Your task to perform on an android device: Open Maps and search for coffee Image 0: 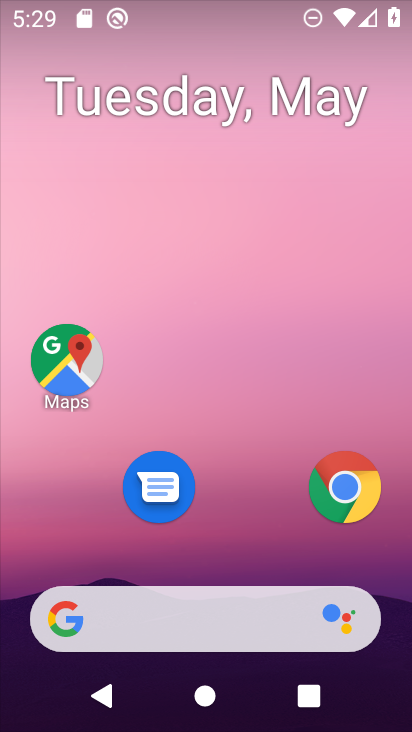
Step 0: click (70, 368)
Your task to perform on an android device: Open Maps and search for coffee Image 1: 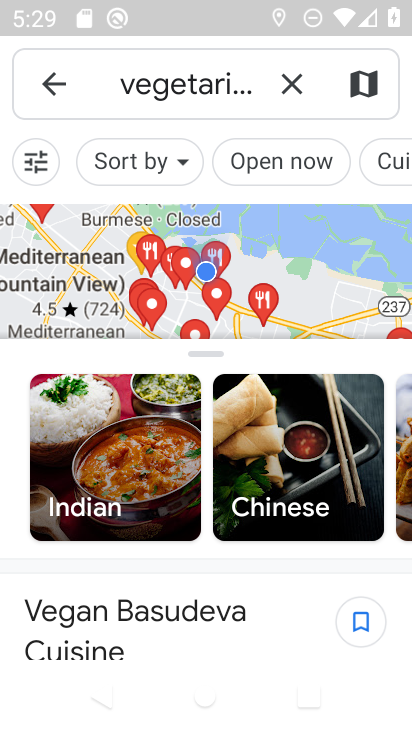
Step 1: click (290, 88)
Your task to perform on an android device: Open Maps and search for coffee Image 2: 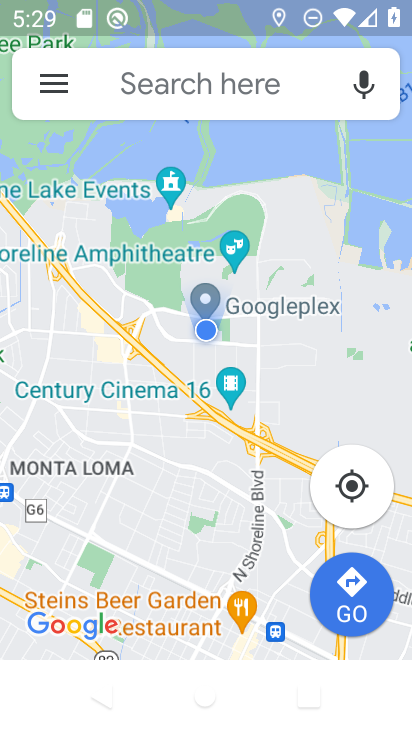
Step 2: click (290, 88)
Your task to perform on an android device: Open Maps and search for coffee Image 3: 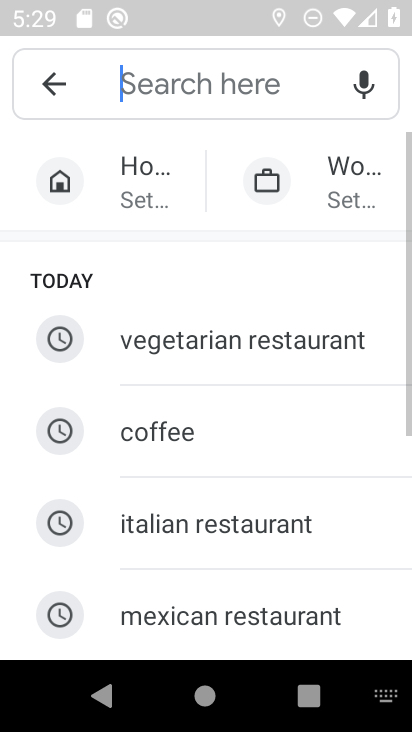
Step 3: click (239, 442)
Your task to perform on an android device: Open Maps and search for coffee Image 4: 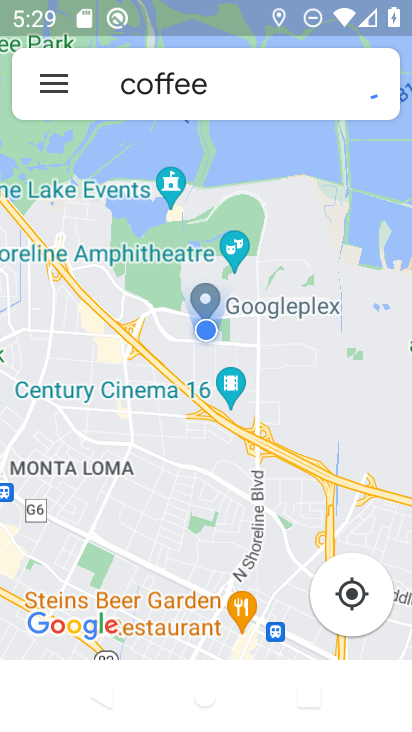
Step 4: task complete